Your task to perform on an android device: turn on bluetooth scan Image 0: 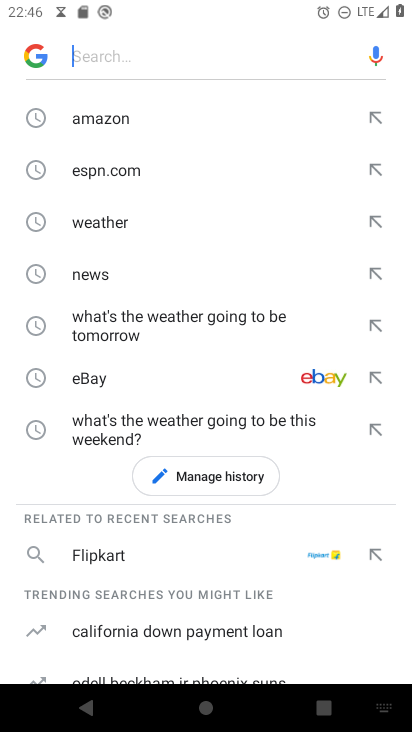
Step 0: press home button
Your task to perform on an android device: turn on bluetooth scan Image 1: 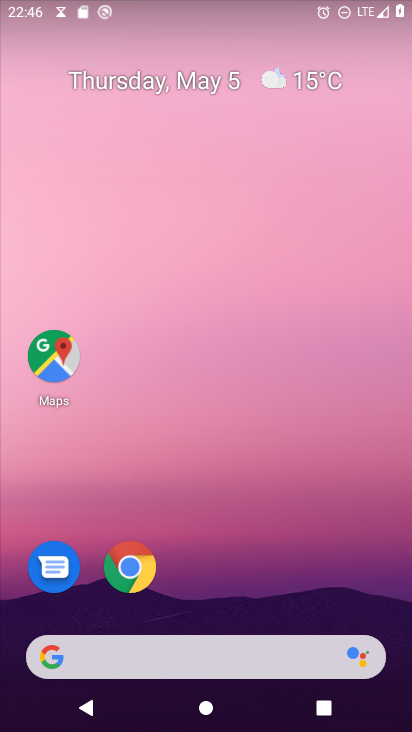
Step 1: drag from (220, 717) to (221, 236)
Your task to perform on an android device: turn on bluetooth scan Image 2: 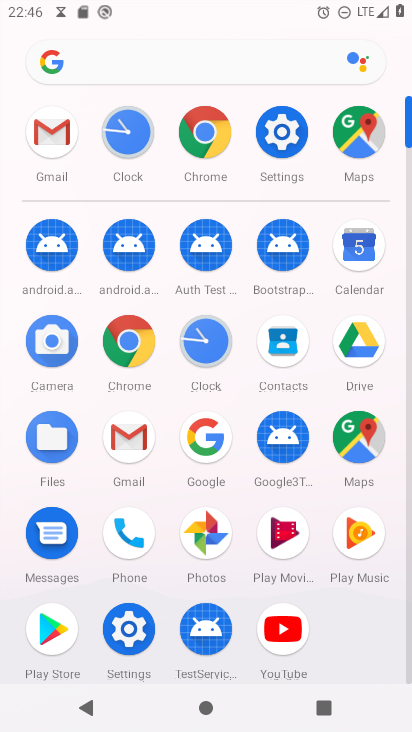
Step 2: click (275, 123)
Your task to perform on an android device: turn on bluetooth scan Image 3: 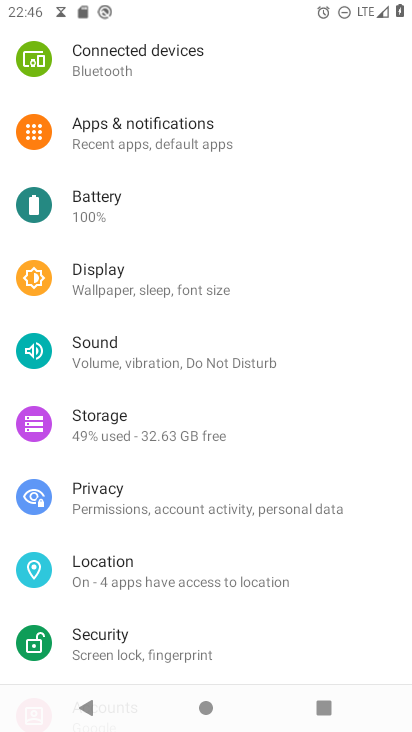
Step 3: click (123, 573)
Your task to perform on an android device: turn on bluetooth scan Image 4: 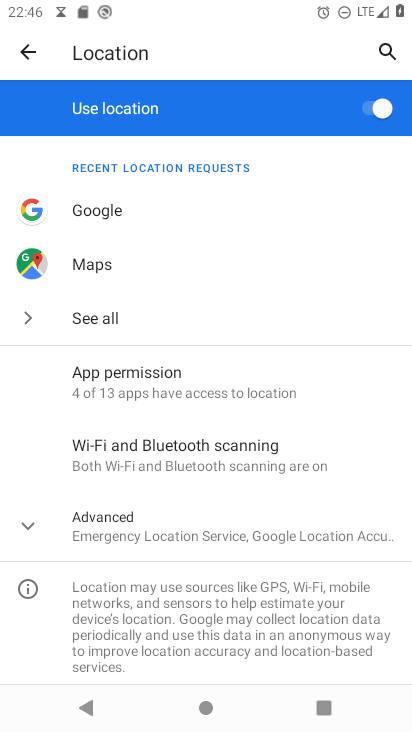
Step 4: click (178, 451)
Your task to perform on an android device: turn on bluetooth scan Image 5: 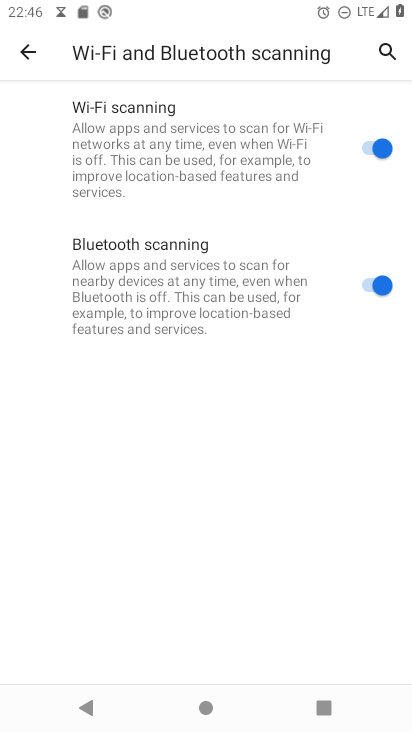
Step 5: task complete